Your task to perform on an android device: open app "Move to iOS" Image 0: 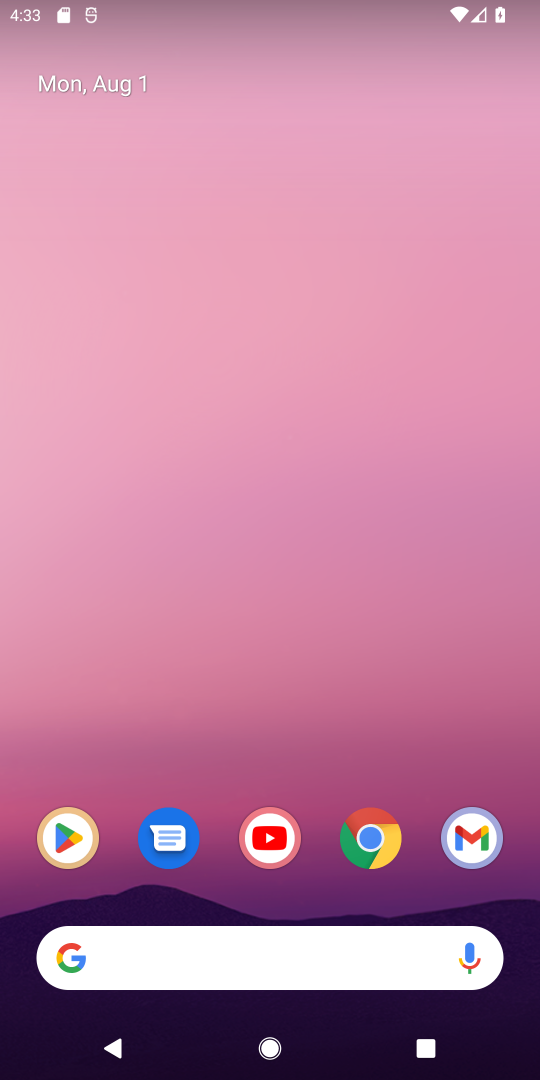
Step 0: click (85, 838)
Your task to perform on an android device: open app "Move to iOS" Image 1: 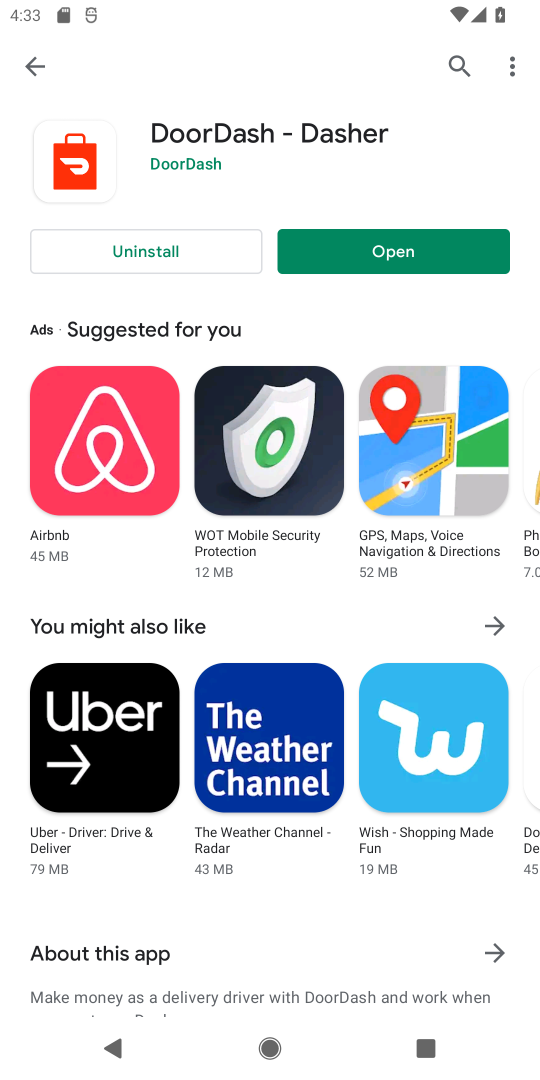
Step 1: click (448, 57)
Your task to perform on an android device: open app "Move to iOS" Image 2: 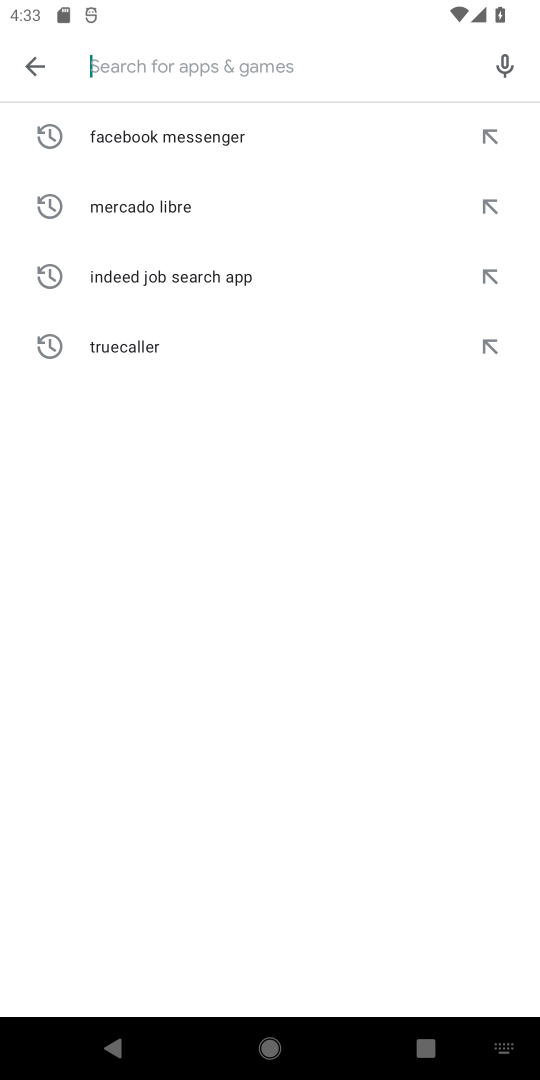
Step 2: type "Move to iOS"
Your task to perform on an android device: open app "Move to iOS" Image 3: 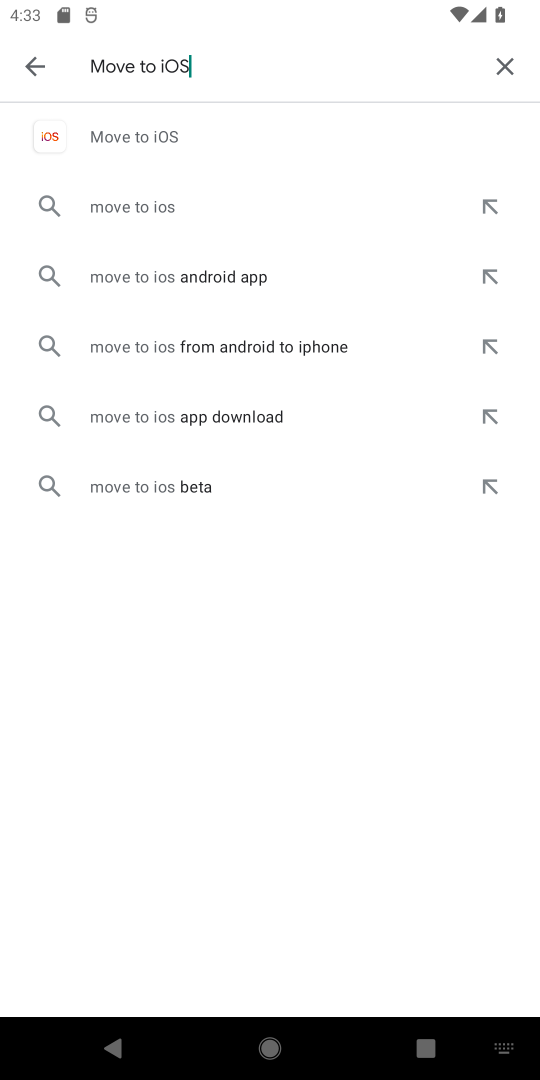
Step 3: click (247, 133)
Your task to perform on an android device: open app "Move to iOS" Image 4: 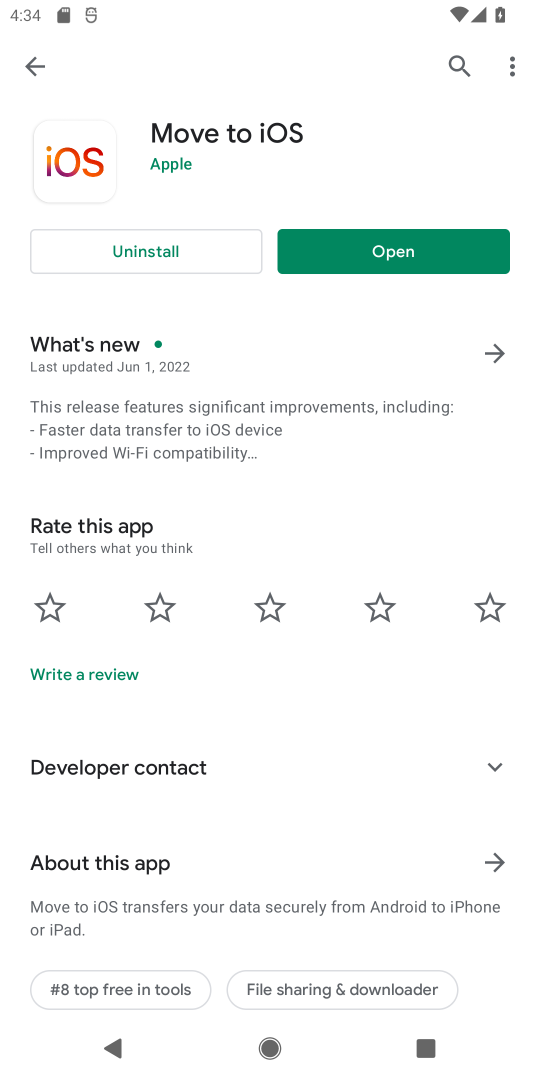
Step 4: click (356, 244)
Your task to perform on an android device: open app "Move to iOS" Image 5: 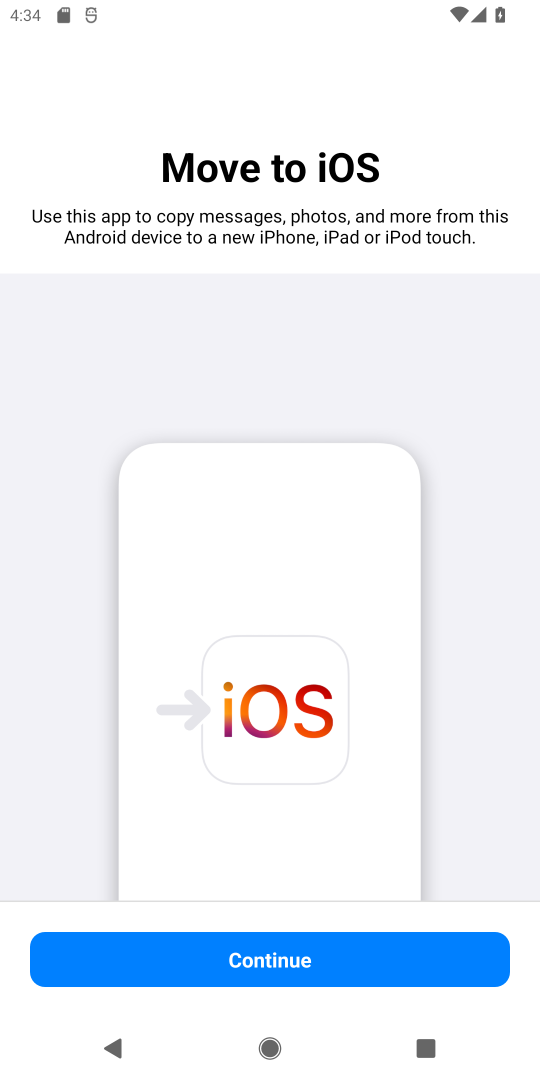
Step 5: task complete